Your task to perform on an android device: Go to calendar. Show me events next week Image 0: 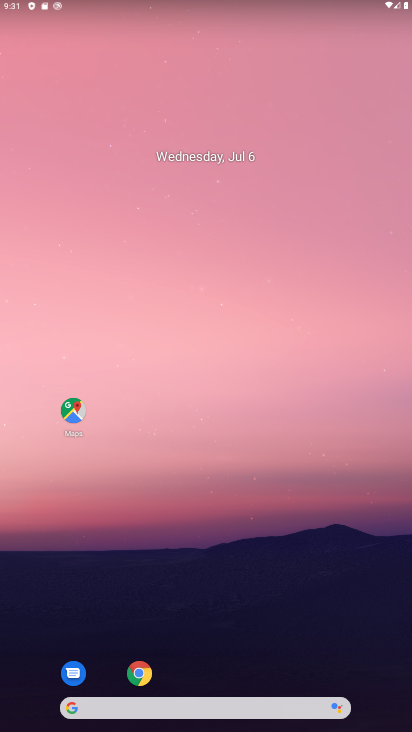
Step 0: drag from (300, 643) to (331, 44)
Your task to perform on an android device: Go to calendar. Show me events next week Image 1: 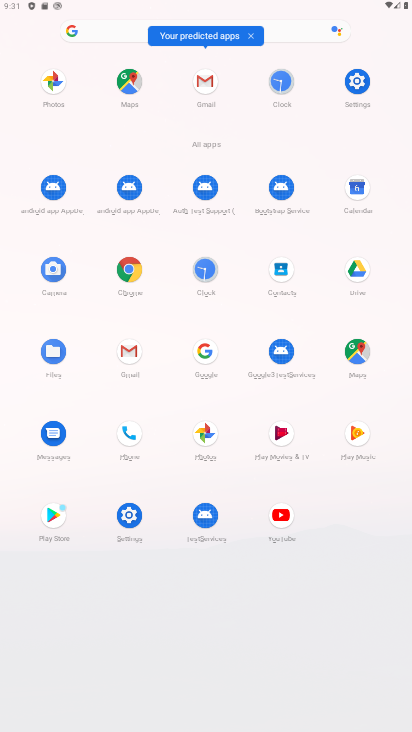
Step 1: click (357, 200)
Your task to perform on an android device: Go to calendar. Show me events next week Image 2: 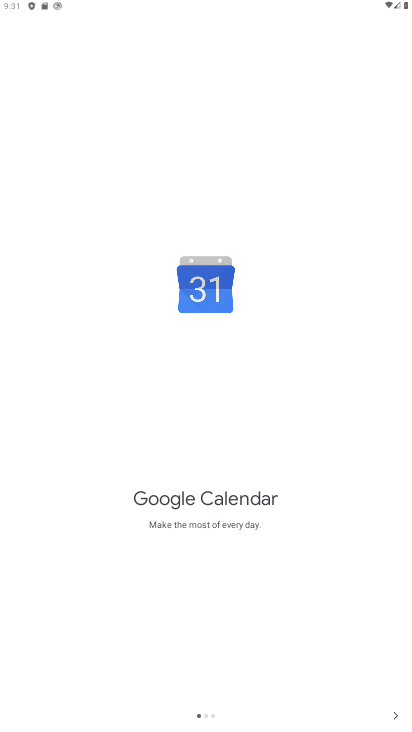
Step 2: click (390, 715)
Your task to perform on an android device: Go to calendar. Show me events next week Image 3: 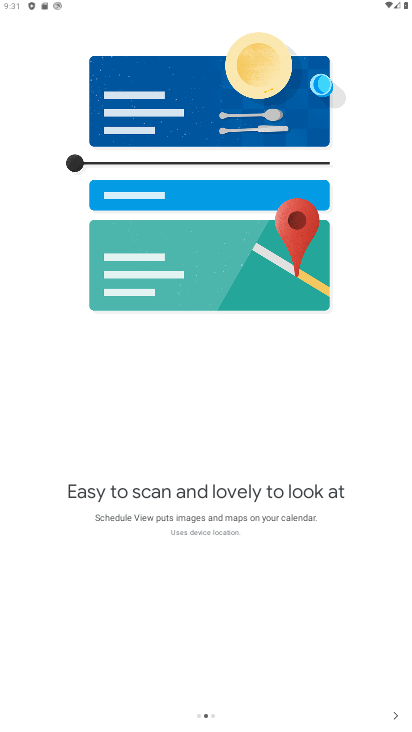
Step 3: click (395, 717)
Your task to perform on an android device: Go to calendar. Show me events next week Image 4: 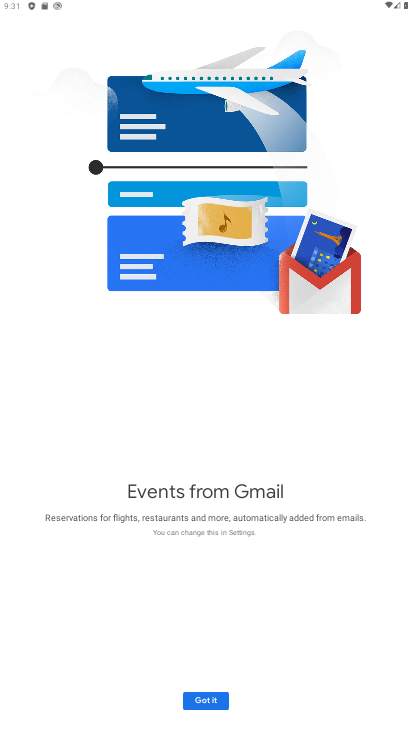
Step 4: click (212, 707)
Your task to perform on an android device: Go to calendar. Show me events next week Image 5: 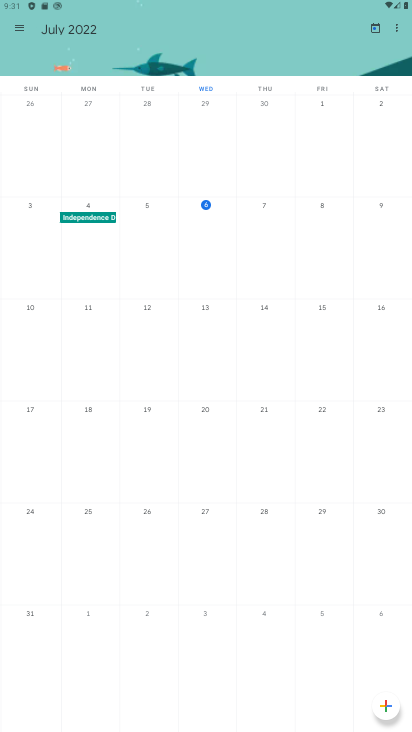
Step 5: drag from (191, 504) to (193, 186)
Your task to perform on an android device: Go to calendar. Show me events next week Image 6: 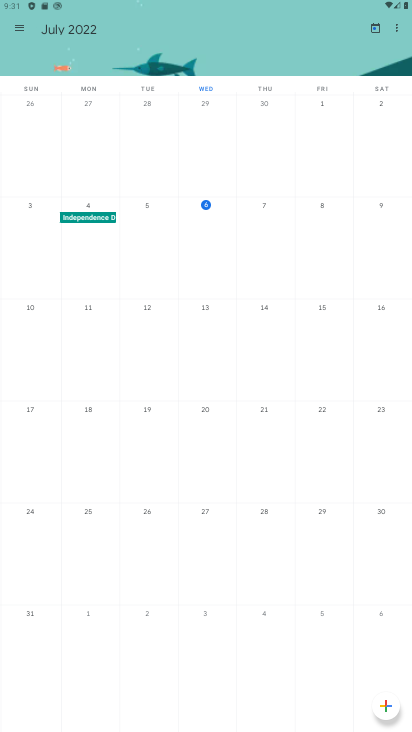
Step 6: click (209, 202)
Your task to perform on an android device: Go to calendar. Show me events next week Image 7: 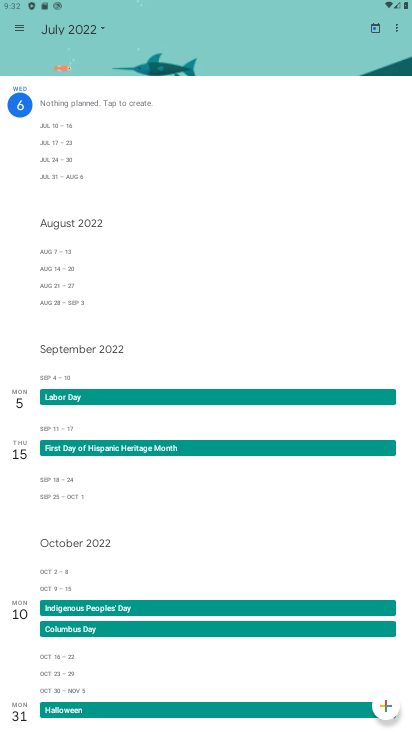
Step 7: task complete